Your task to perform on an android device: Open settings on Google Maps Image 0: 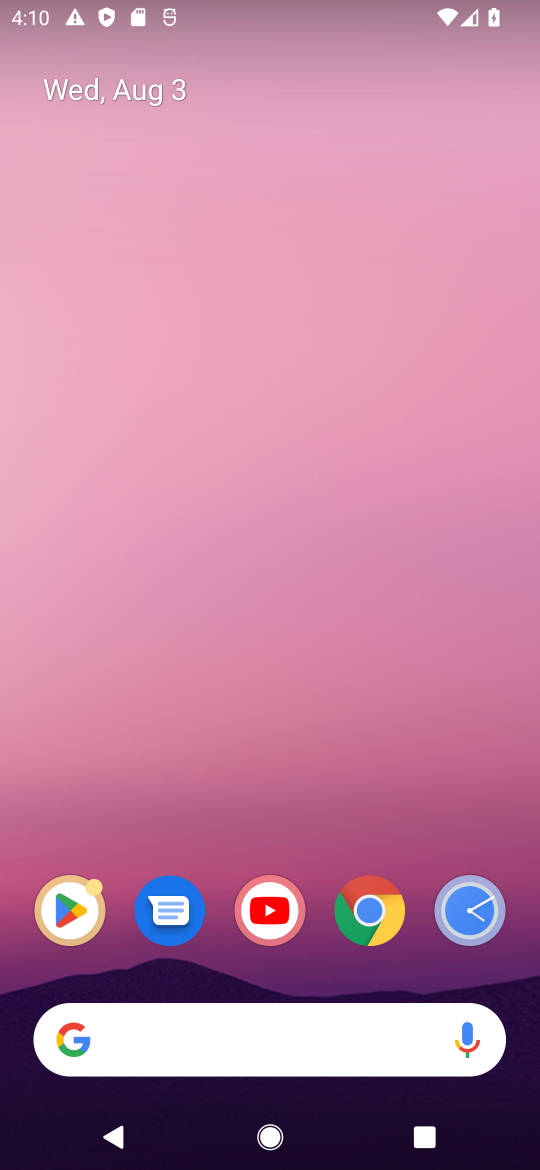
Step 0: press home button
Your task to perform on an android device: Open settings on Google Maps Image 1: 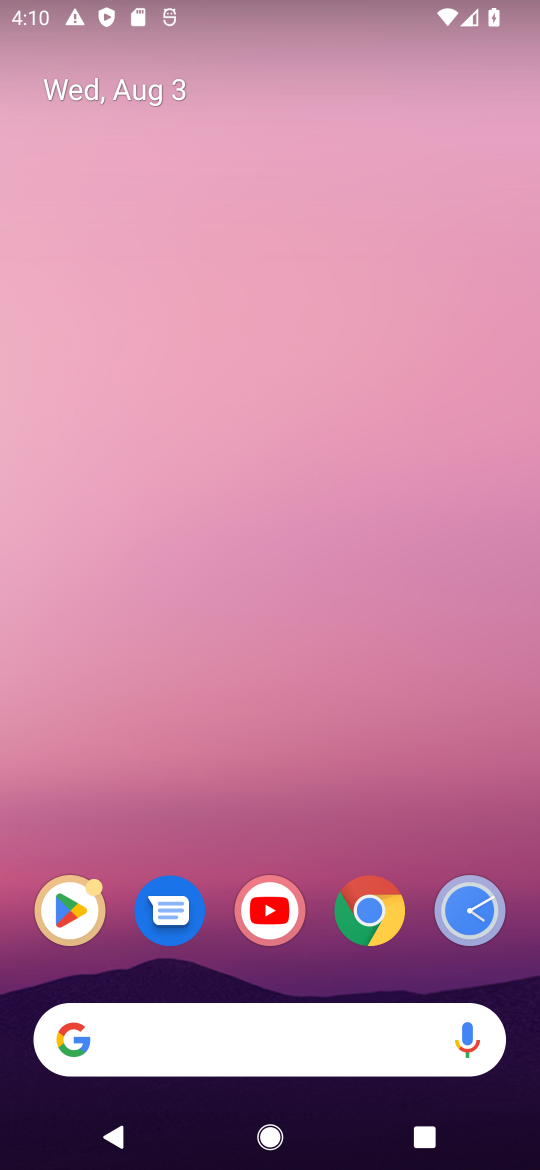
Step 1: drag from (299, 829) to (286, 11)
Your task to perform on an android device: Open settings on Google Maps Image 2: 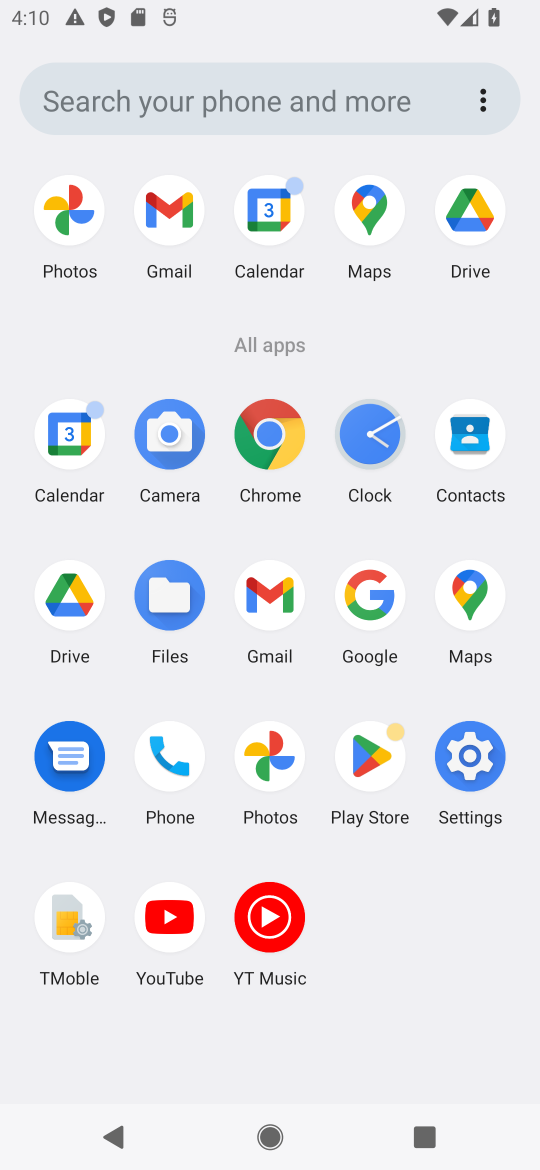
Step 2: click (467, 745)
Your task to perform on an android device: Open settings on Google Maps Image 3: 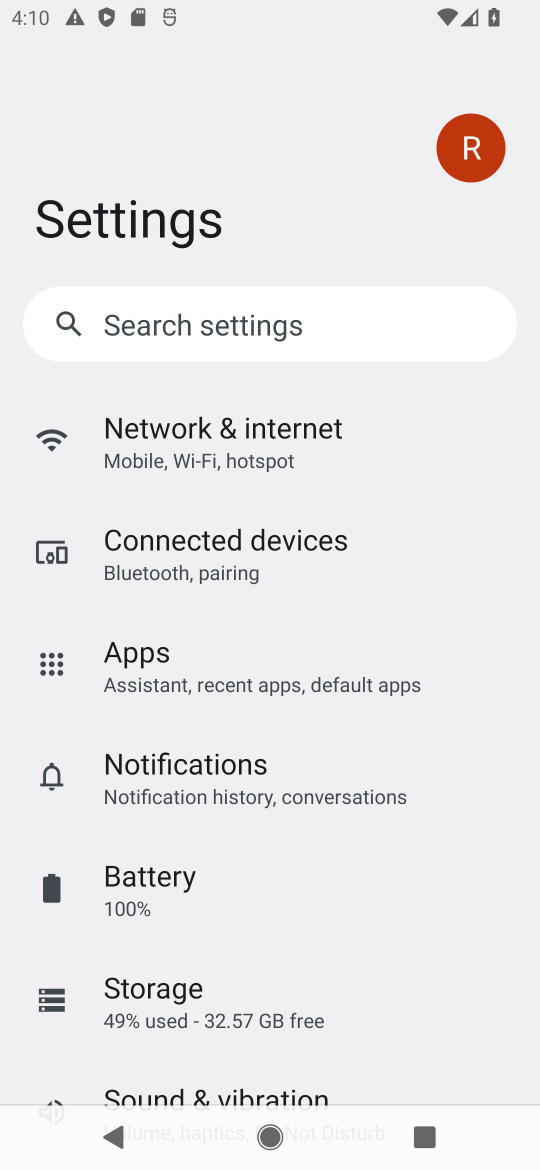
Step 3: press home button
Your task to perform on an android device: Open settings on Google Maps Image 4: 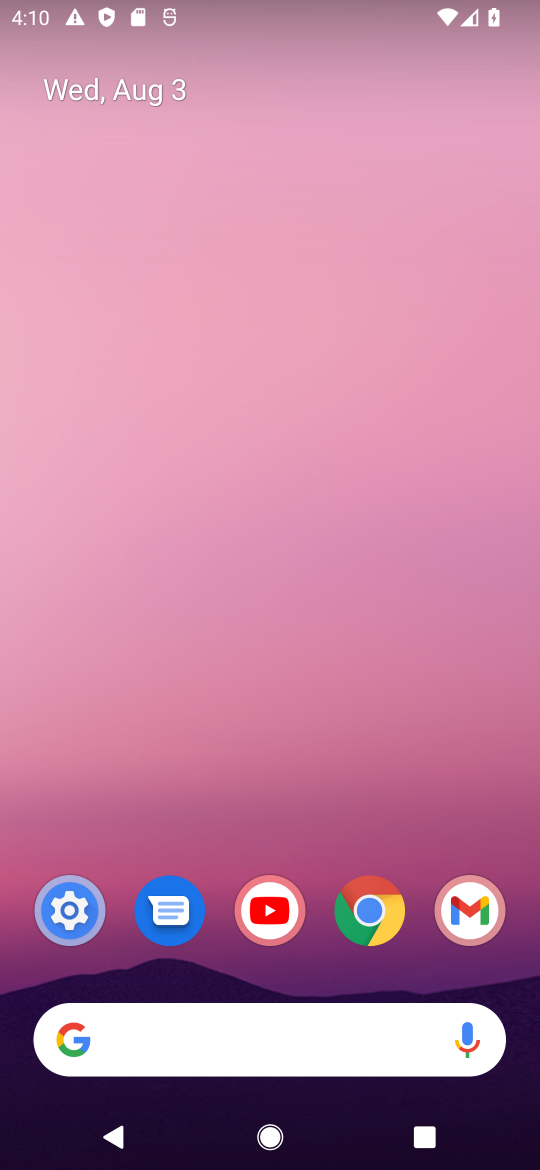
Step 4: drag from (303, 804) to (329, 66)
Your task to perform on an android device: Open settings on Google Maps Image 5: 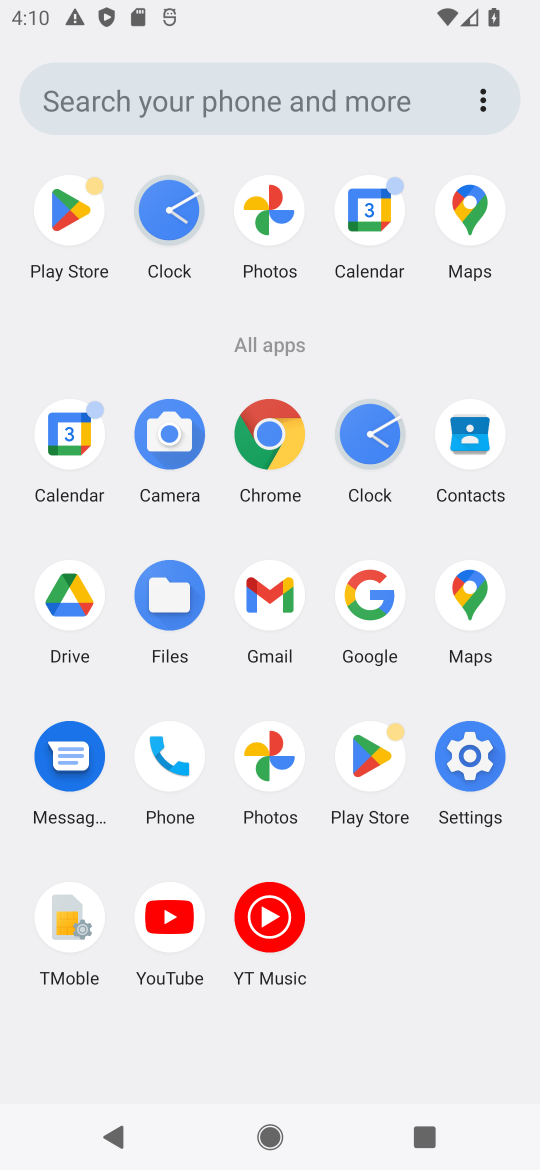
Step 5: click (466, 583)
Your task to perform on an android device: Open settings on Google Maps Image 6: 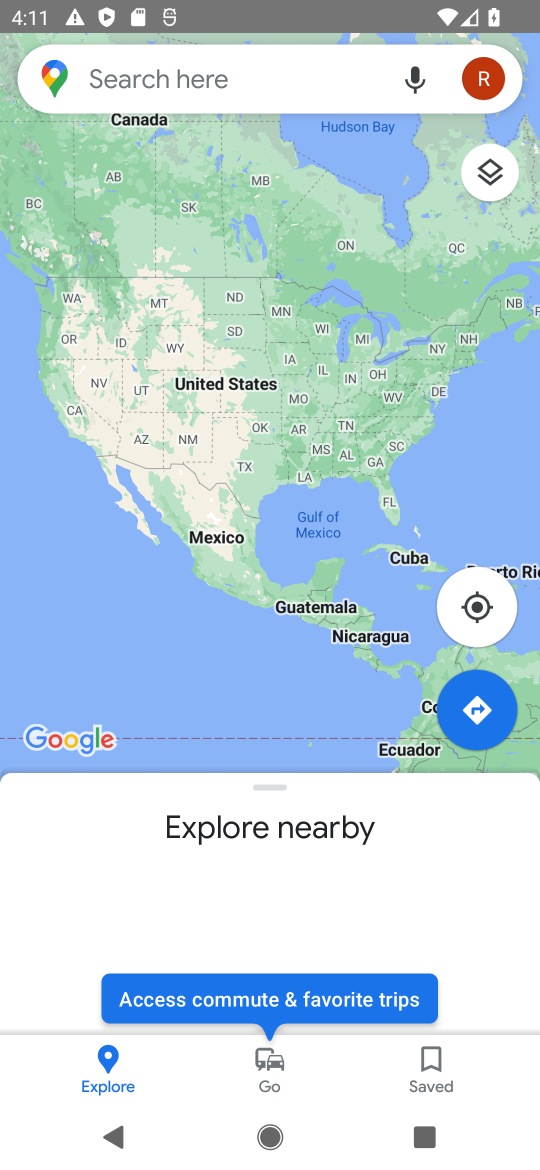
Step 6: click (473, 75)
Your task to perform on an android device: Open settings on Google Maps Image 7: 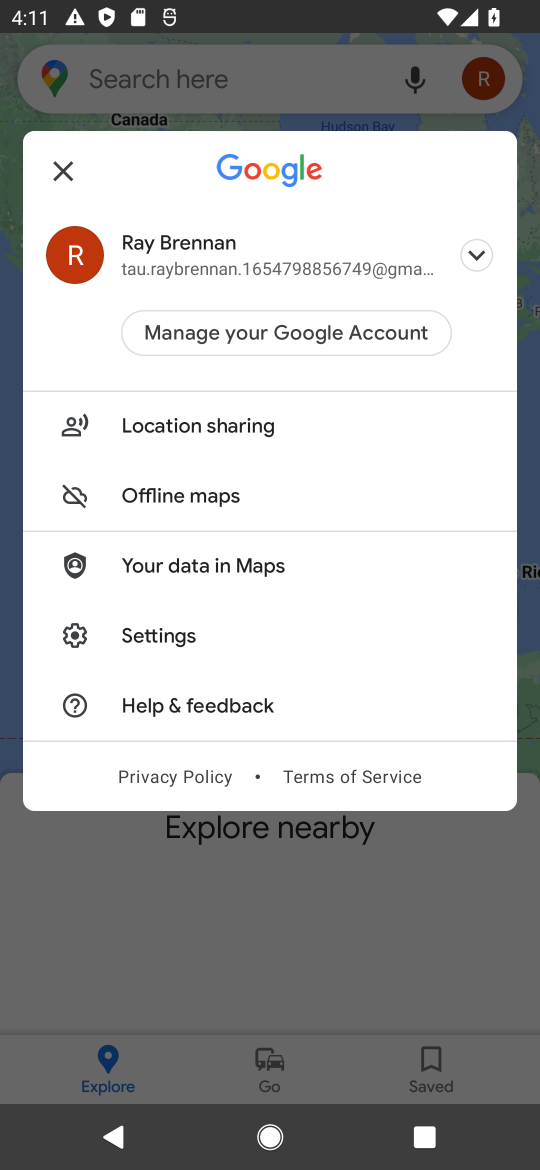
Step 7: click (194, 634)
Your task to perform on an android device: Open settings on Google Maps Image 8: 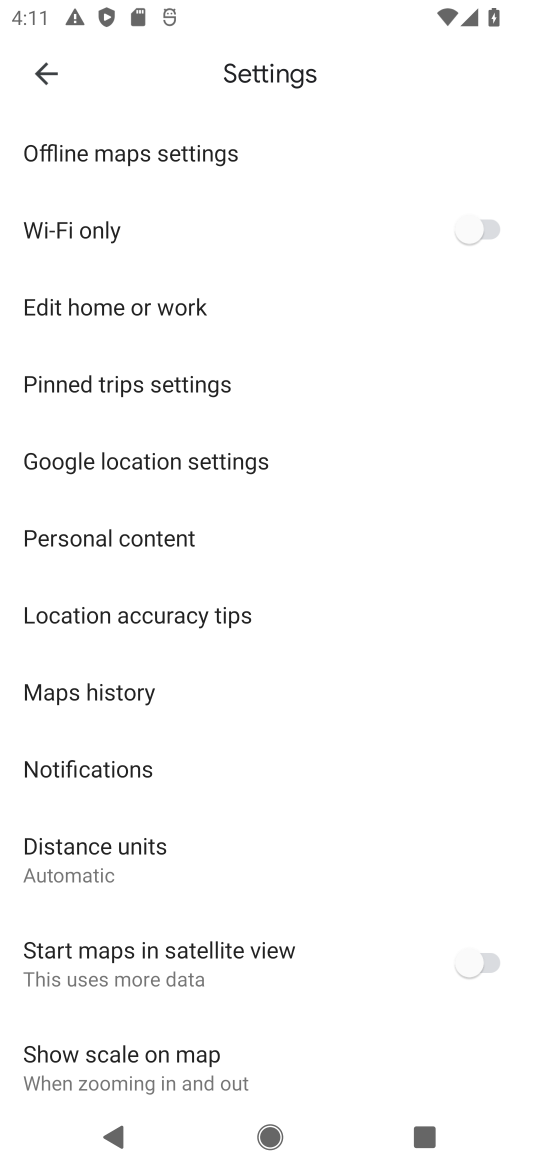
Step 8: task complete